Your task to perform on an android device: Go to settings Image 0: 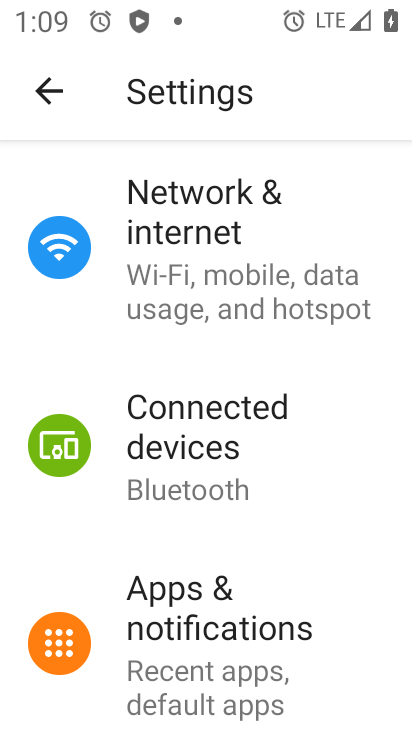
Step 0: press home button
Your task to perform on an android device: Go to settings Image 1: 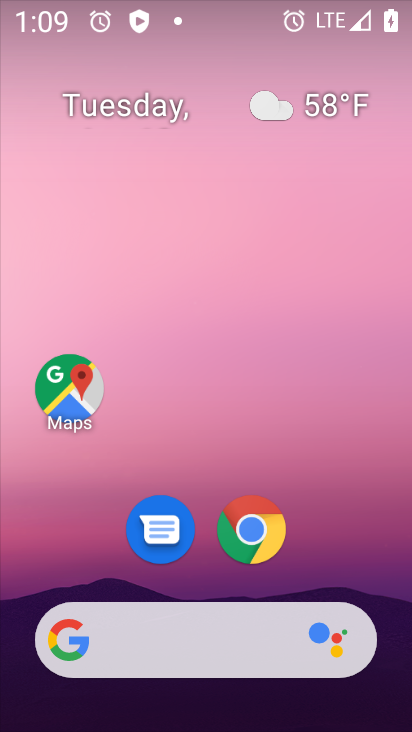
Step 1: drag from (269, 525) to (351, 17)
Your task to perform on an android device: Go to settings Image 2: 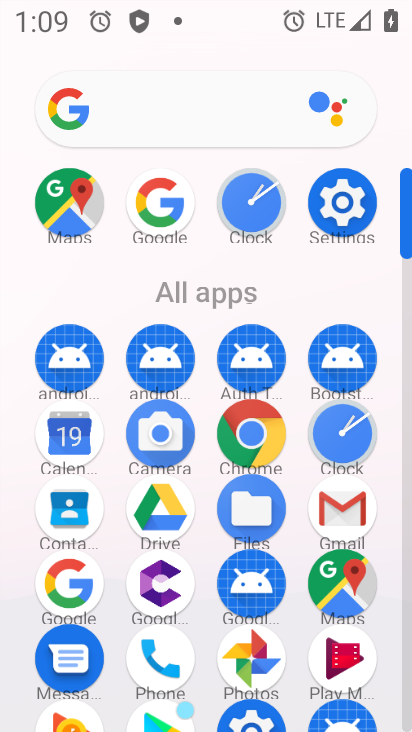
Step 2: click (342, 220)
Your task to perform on an android device: Go to settings Image 3: 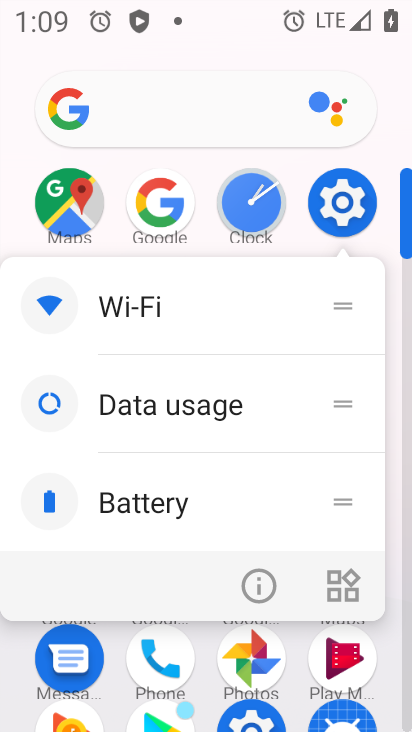
Step 3: click (337, 203)
Your task to perform on an android device: Go to settings Image 4: 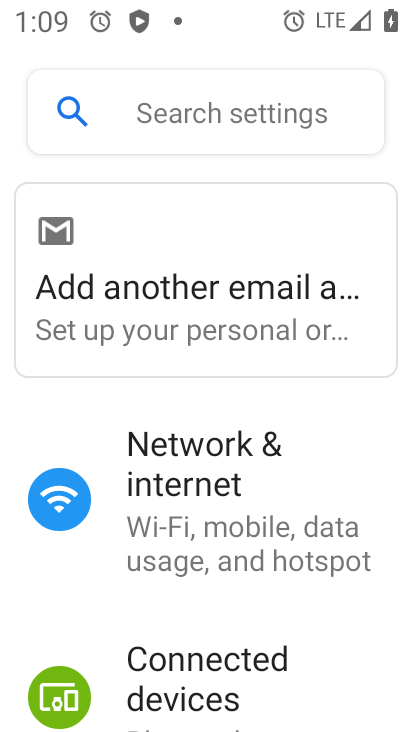
Step 4: task complete